Your task to perform on an android device: Go to Yahoo.com Image 0: 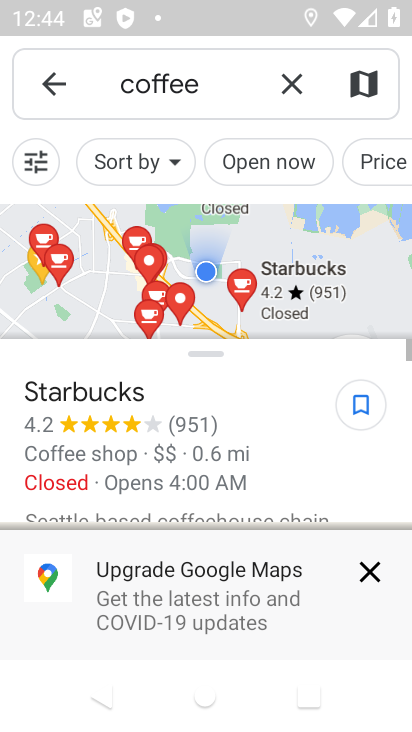
Step 0: press home button
Your task to perform on an android device: Go to Yahoo.com Image 1: 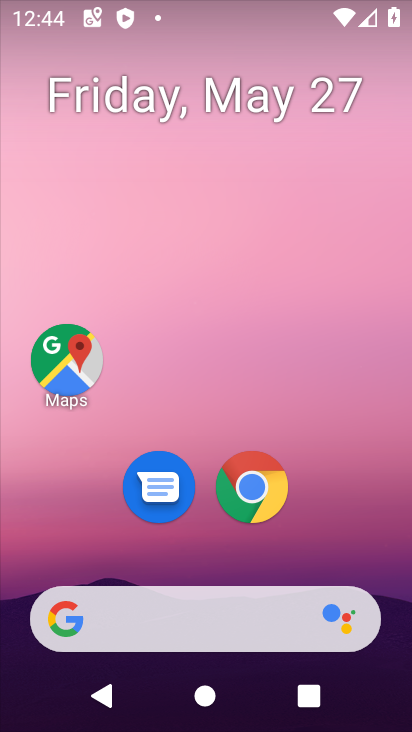
Step 1: click (254, 490)
Your task to perform on an android device: Go to Yahoo.com Image 2: 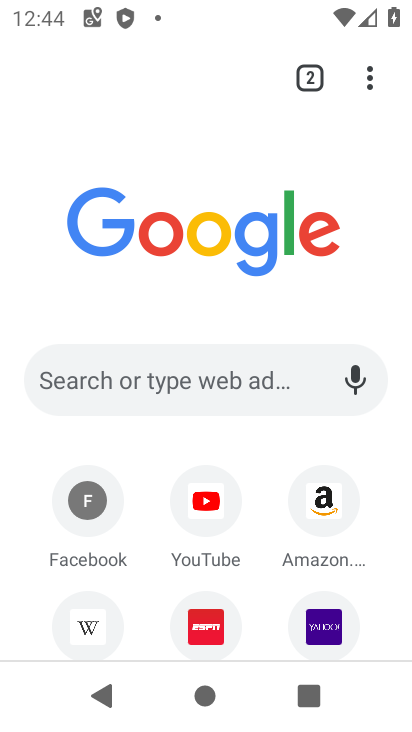
Step 2: click (327, 617)
Your task to perform on an android device: Go to Yahoo.com Image 3: 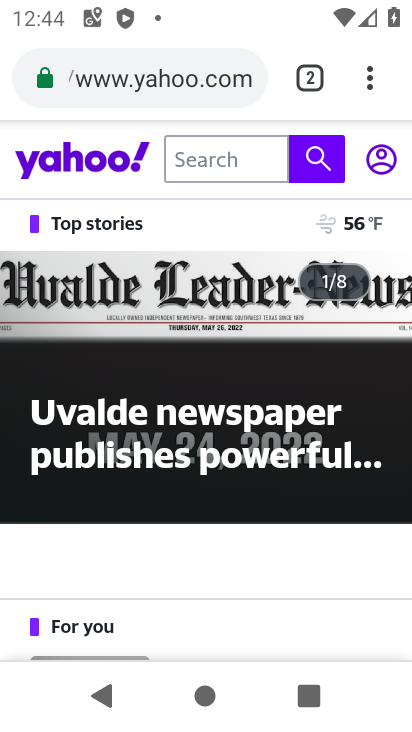
Step 3: task complete